Your task to perform on an android device: What's on my calendar tomorrow? Image 0: 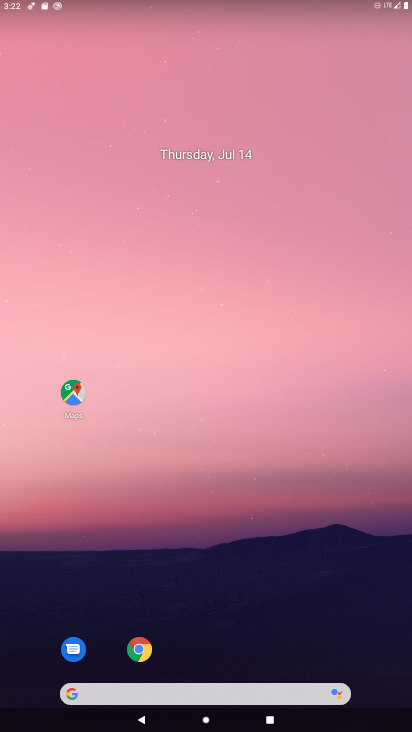
Step 0: drag from (225, 647) to (234, 218)
Your task to perform on an android device: What's on my calendar tomorrow? Image 1: 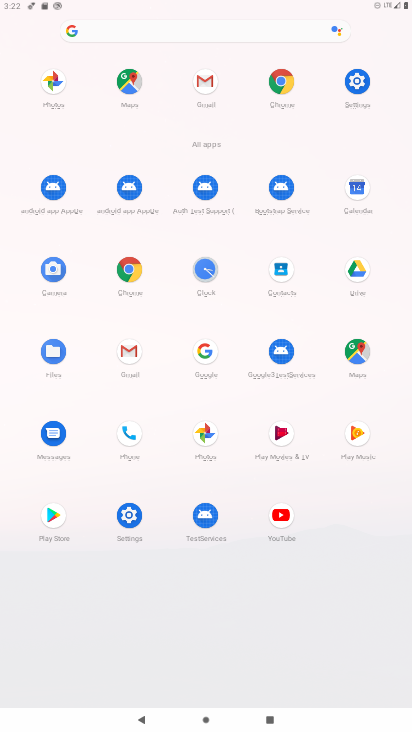
Step 1: click (358, 180)
Your task to perform on an android device: What's on my calendar tomorrow? Image 2: 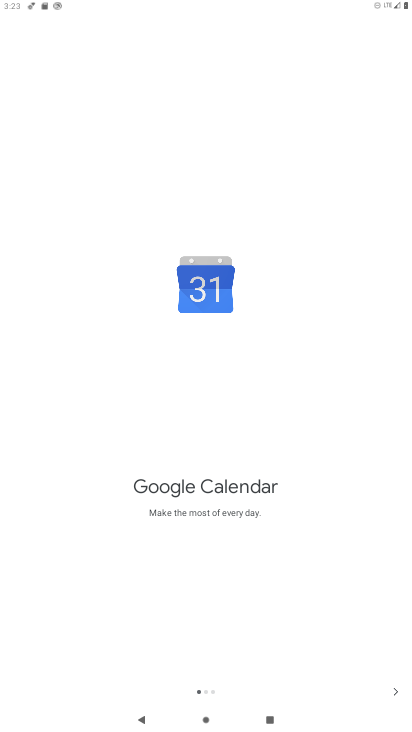
Step 2: click (398, 685)
Your task to perform on an android device: What's on my calendar tomorrow? Image 3: 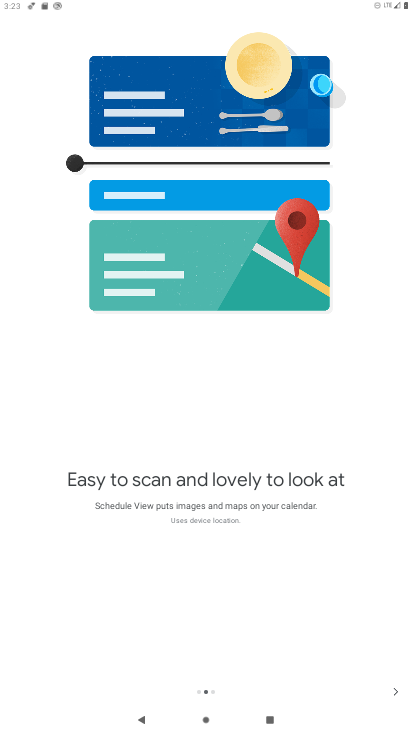
Step 3: click (392, 695)
Your task to perform on an android device: What's on my calendar tomorrow? Image 4: 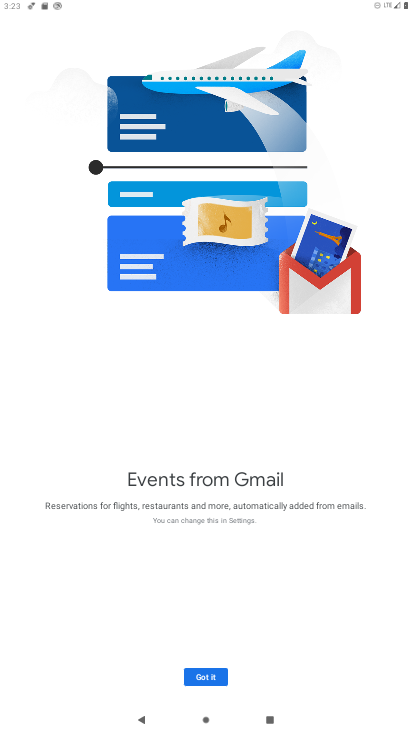
Step 4: click (221, 674)
Your task to perform on an android device: What's on my calendar tomorrow? Image 5: 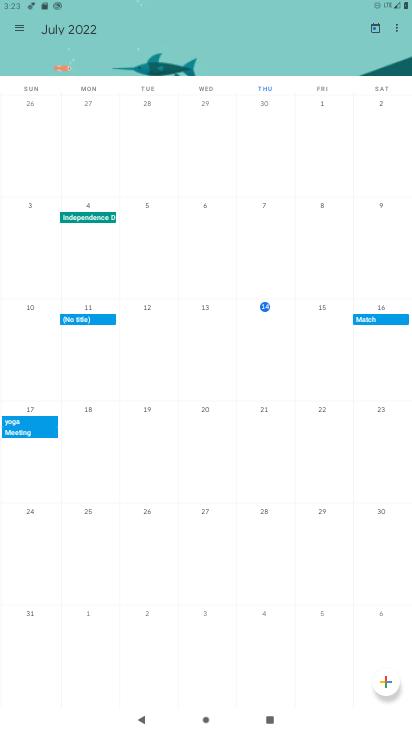
Step 5: click (315, 312)
Your task to perform on an android device: What's on my calendar tomorrow? Image 6: 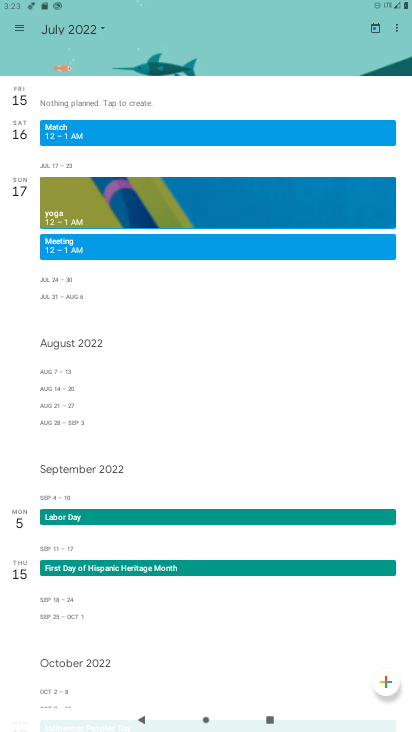
Step 6: task complete